Your task to perform on an android device: move a message to another label in the gmail app Image 0: 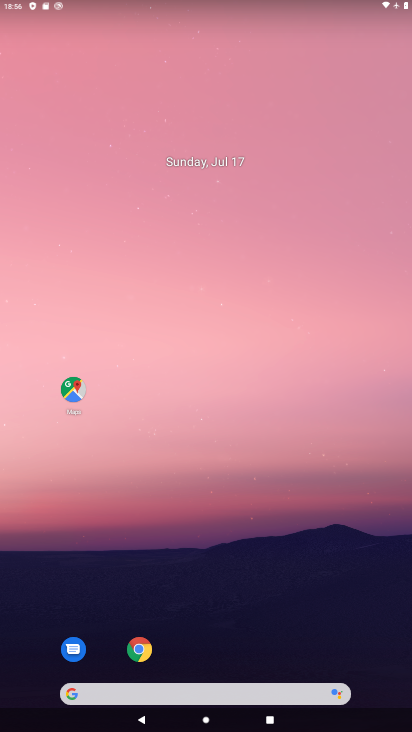
Step 0: click (265, 558)
Your task to perform on an android device: move a message to another label in the gmail app Image 1: 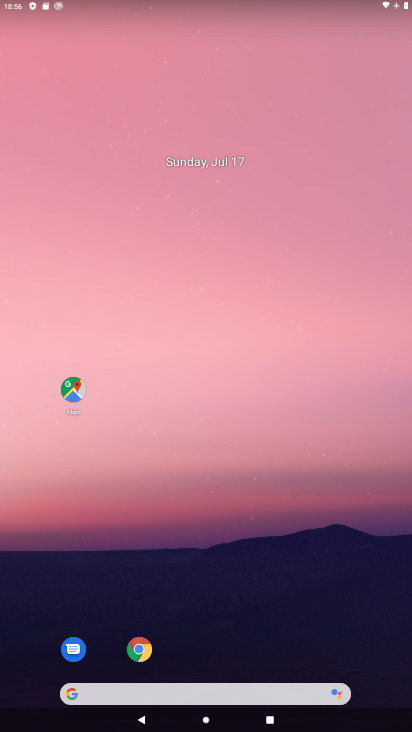
Step 1: drag from (265, 558) to (129, 34)
Your task to perform on an android device: move a message to another label in the gmail app Image 2: 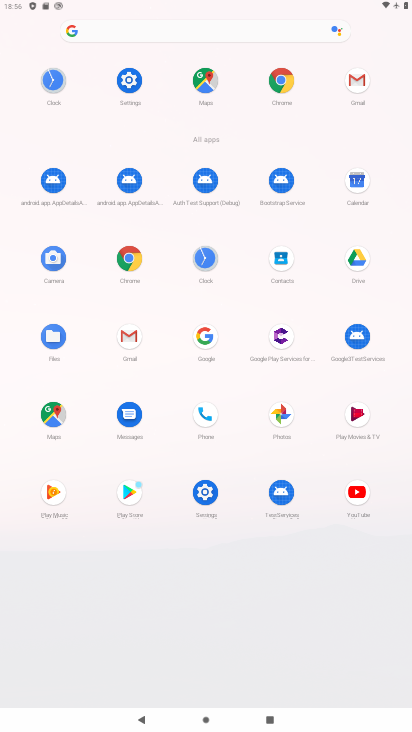
Step 2: click (354, 83)
Your task to perform on an android device: move a message to another label in the gmail app Image 3: 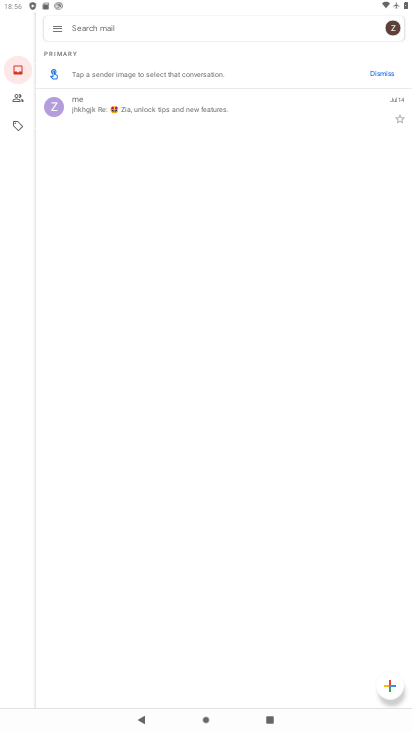
Step 3: click (179, 106)
Your task to perform on an android device: move a message to another label in the gmail app Image 4: 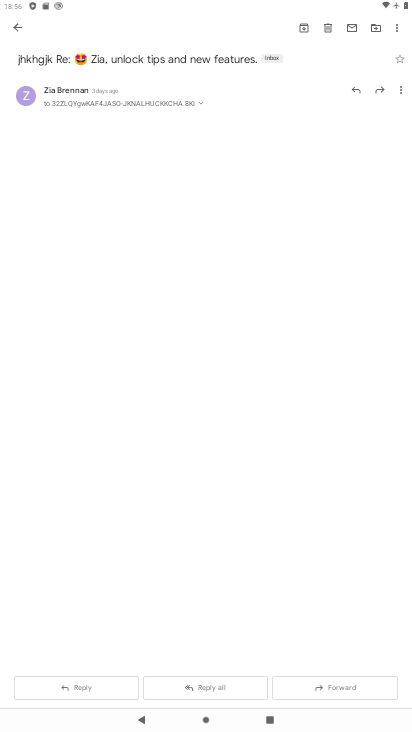
Step 4: click (393, 25)
Your task to perform on an android device: move a message to another label in the gmail app Image 5: 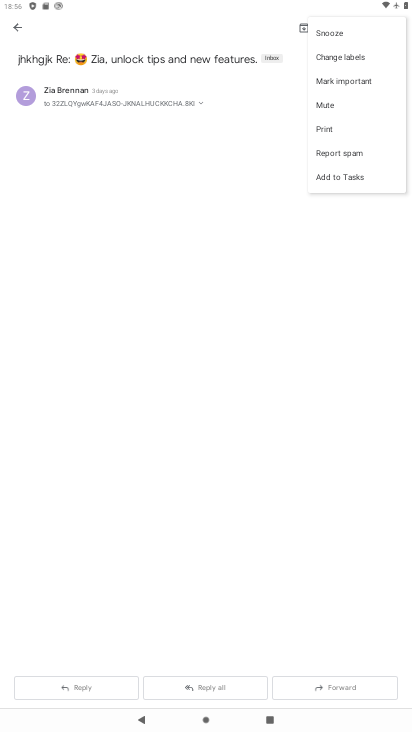
Step 5: click (341, 58)
Your task to perform on an android device: move a message to another label in the gmail app Image 6: 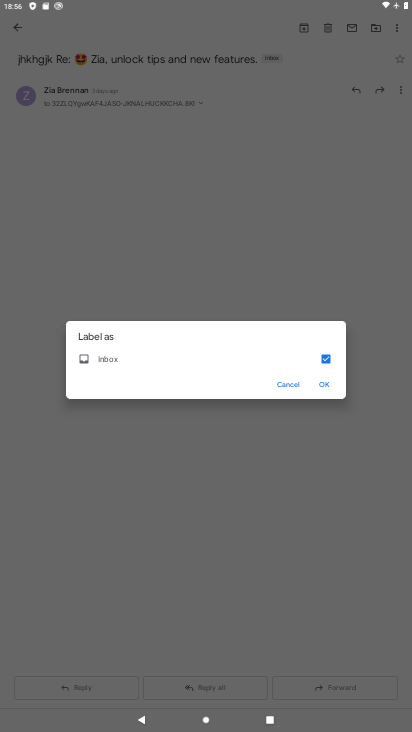
Step 6: click (319, 378)
Your task to perform on an android device: move a message to another label in the gmail app Image 7: 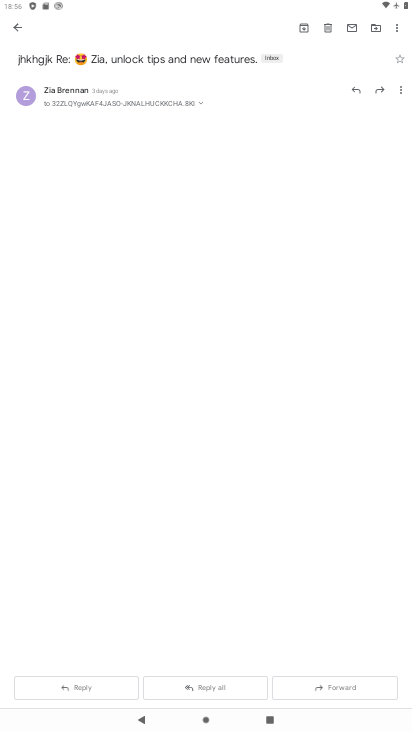
Step 7: task complete